Your task to perform on an android device: Clear the cart on amazon. Search for "alienware aurora" on amazon, select the first entry, and add it to the cart. Image 0: 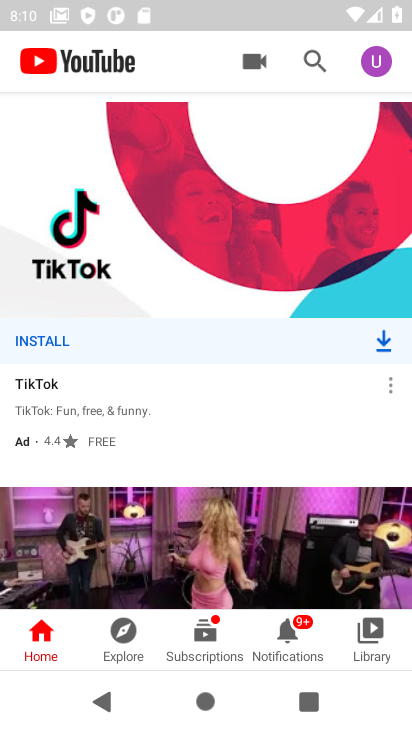
Step 0: press home button
Your task to perform on an android device: Clear the cart on amazon. Search for "alienware aurora" on amazon, select the first entry, and add it to the cart. Image 1: 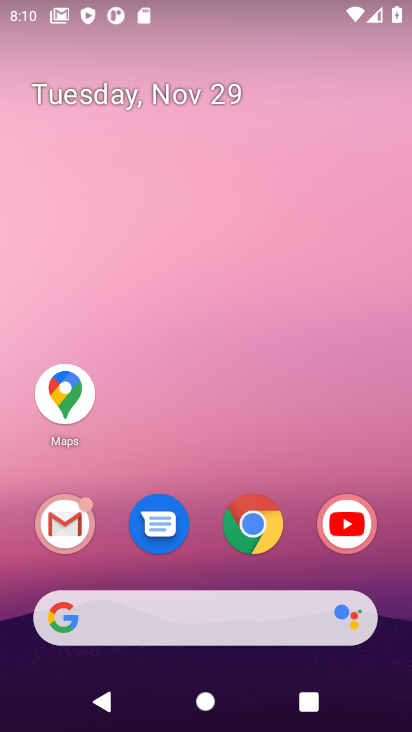
Step 1: click (253, 527)
Your task to perform on an android device: Clear the cart on amazon. Search for "alienware aurora" on amazon, select the first entry, and add it to the cart. Image 2: 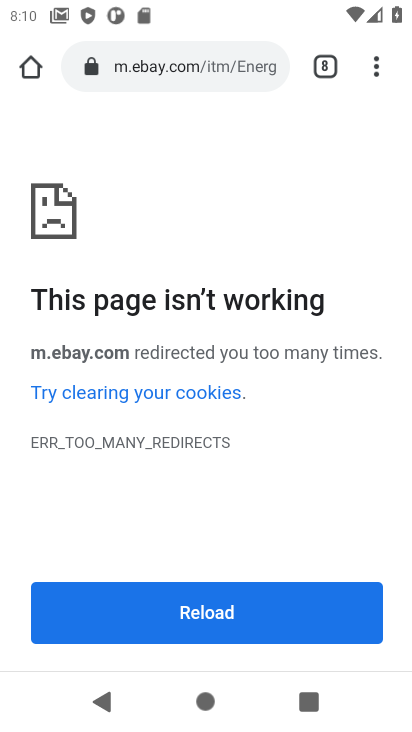
Step 2: click (161, 68)
Your task to perform on an android device: Clear the cart on amazon. Search for "alienware aurora" on amazon, select the first entry, and add it to the cart. Image 3: 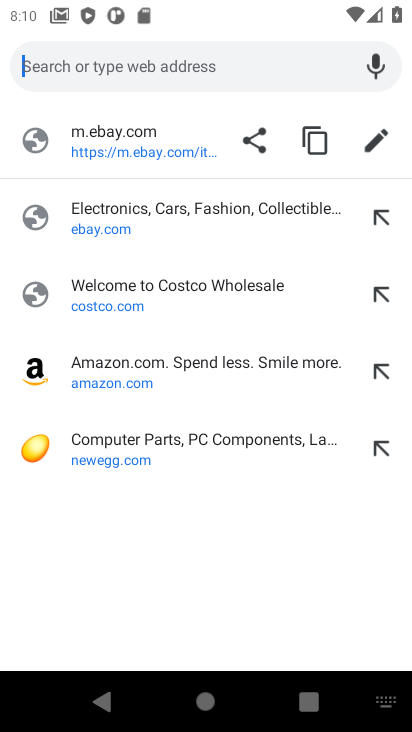
Step 3: click (93, 361)
Your task to perform on an android device: Clear the cart on amazon. Search for "alienware aurora" on amazon, select the first entry, and add it to the cart. Image 4: 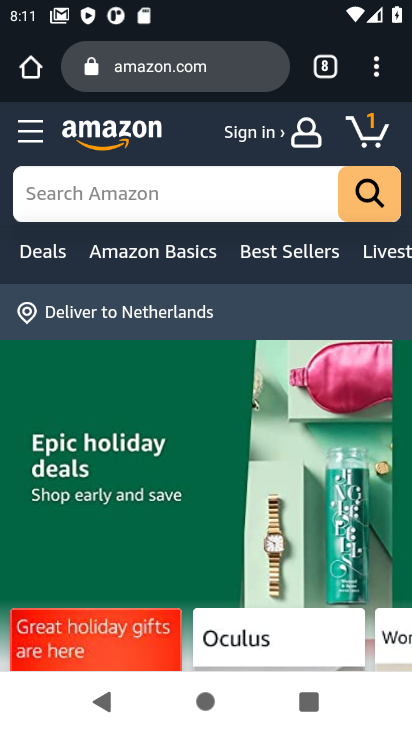
Step 4: click (363, 126)
Your task to perform on an android device: Clear the cart on amazon. Search for "alienware aurora" on amazon, select the first entry, and add it to the cart. Image 5: 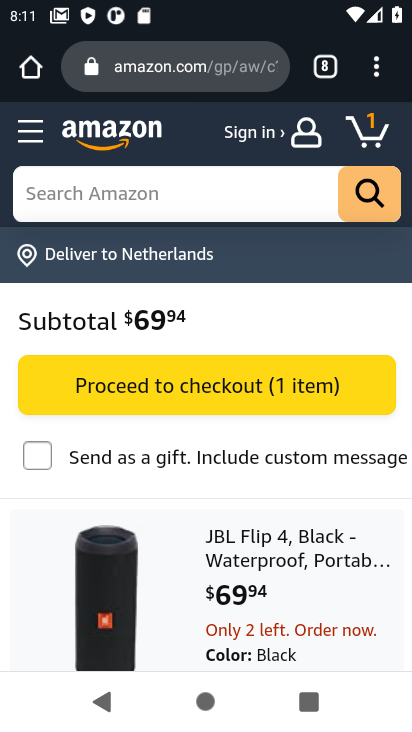
Step 5: drag from (184, 594) to (173, 416)
Your task to perform on an android device: Clear the cart on amazon. Search for "alienware aurora" on amazon, select the first entry, and add it to the cart. Image 6: 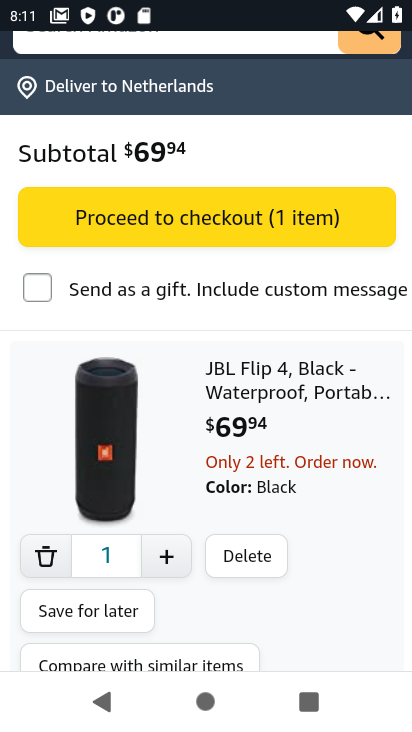
Step 6: click (258, 559)
Your task to perform on an android device: Clear the cart on amazon. Search for "alienware aurora" on amazon, select the first entry, and add it to the cart. Image 7: 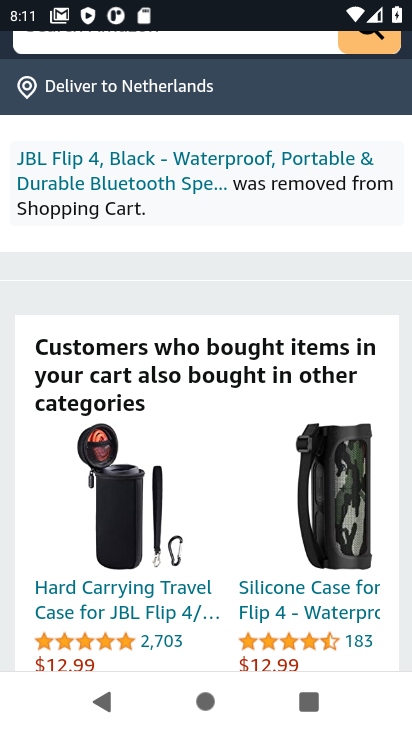
Step 7: drag from (130, 143) to (180, 345)
Your task to perform on an android device: Clear the cart on amazon. Search for "alienware aurora" on amazon, select the first entry, and add it to the cart. Image 8: 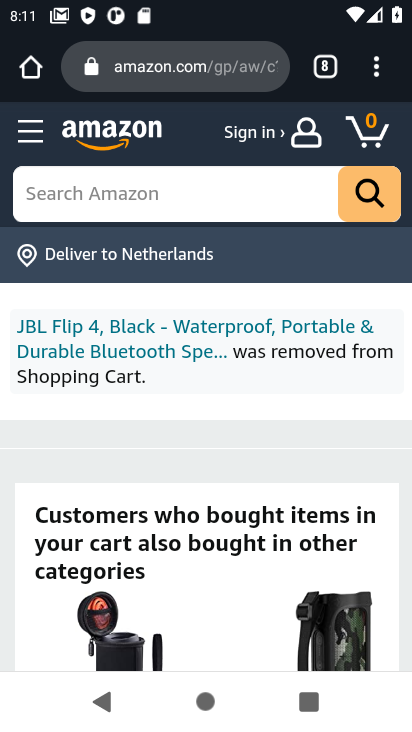
Step 8: click (48, 192)
Your task to perform on an android device: Clear the cart on amazon. Search for "alienware aurora" on amazon, select the first entry, and add it to the cart. Image 9: 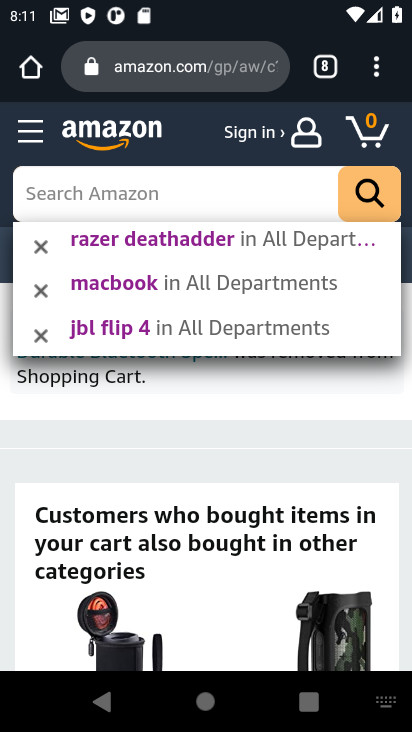
Step 9: type "alienware aurora"
Your task to perform on an android device: Clear the cart on amazon. Search for "alienware aurora" on amazon, select the first entry, and add it to the cart. Image 10: 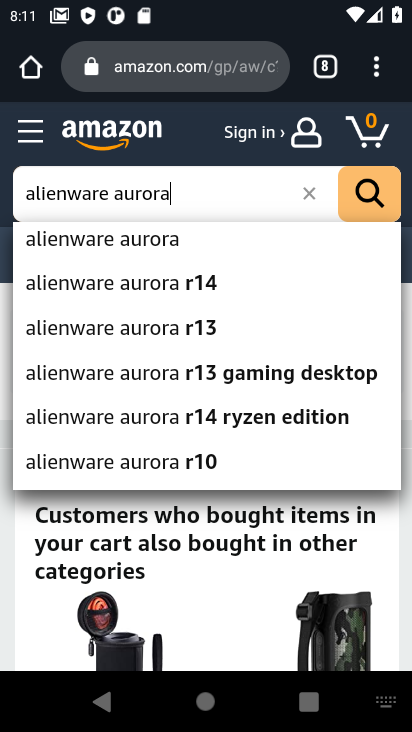
Step 10: click (93, 238)
Your task to perform on an android device: Clear the cart on amazon. Search for "alienware aurora" on amazon, select the first entry, and add it to the cart. Image 11: 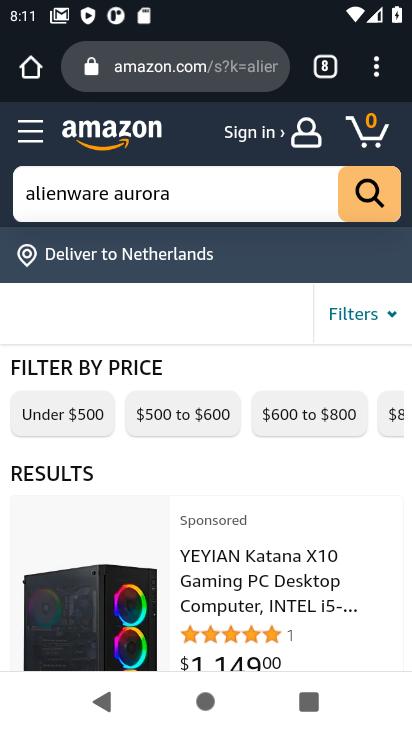
Step 11: task complete